Your task to perform on an android device: turn off wifi Image 0: 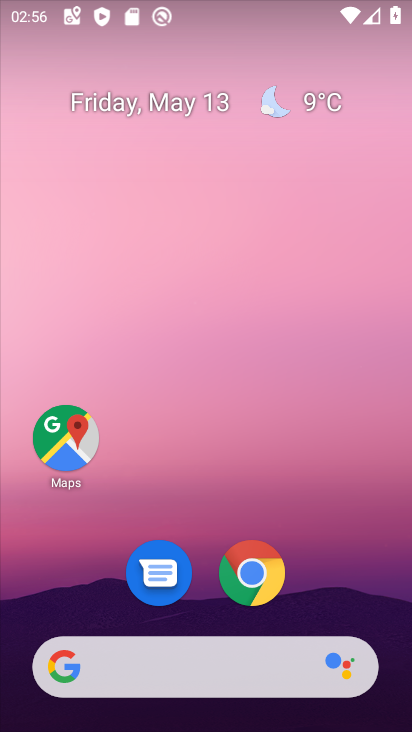
Step 0: drag from (334, 568) to (247, 137)
Your task to perform on an android device: turn off wifi Image 1: 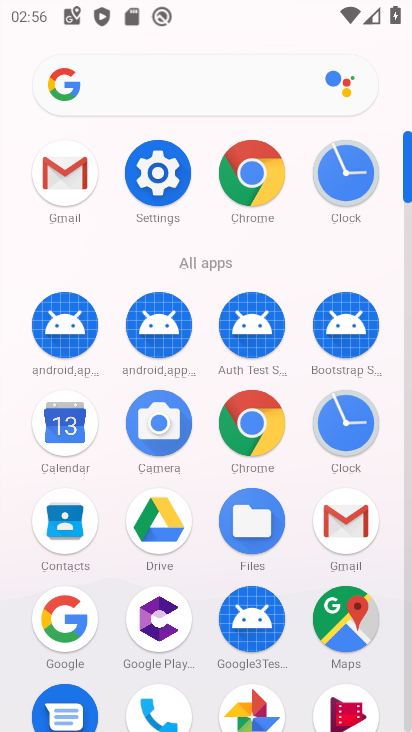
Step 1: click (161, 175)
Your task to perform on an android device: turn off wifi Image 2: 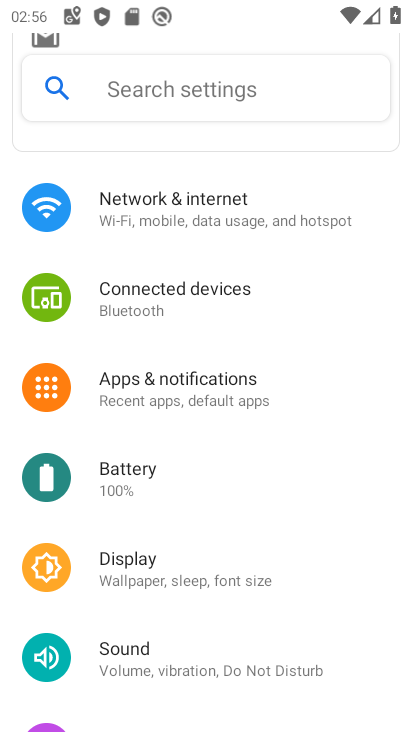
Step 2: click (161, 216)
Your task to perform on an android device: turn off wifi Image 3: 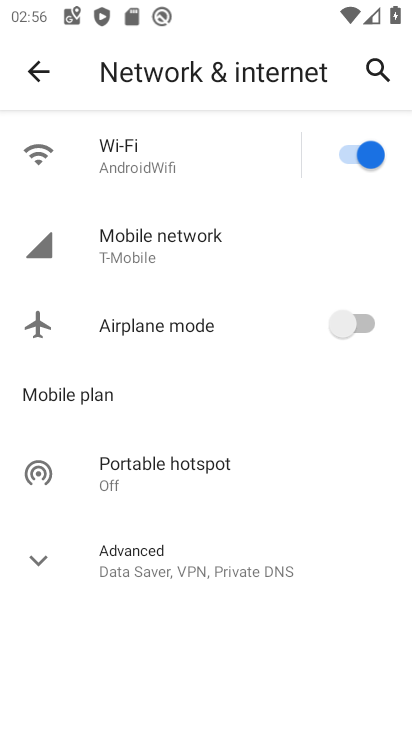
Step 3: click (115, 152)
Your task to perform on an android device: turn off wifi Image 4: 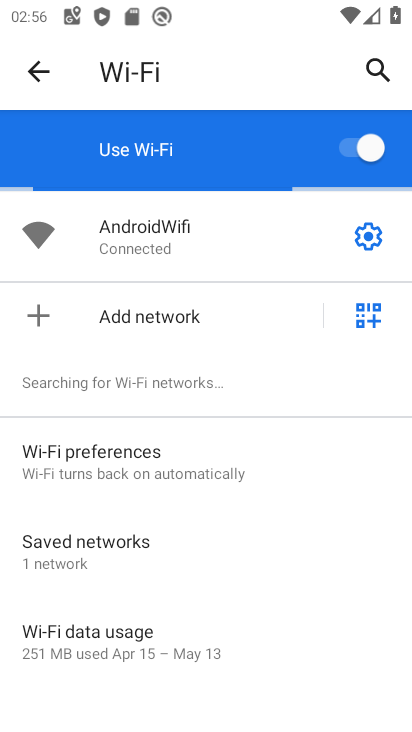
Step 4: click (366, 141)
Your task to perform on an android device: turn off wifi Image 5: 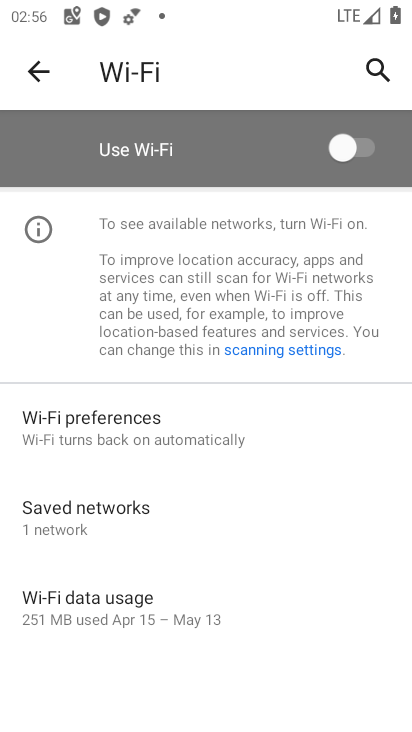
Step 5: task complete